Your task to perform on an android device: toggle wifi Image 0: 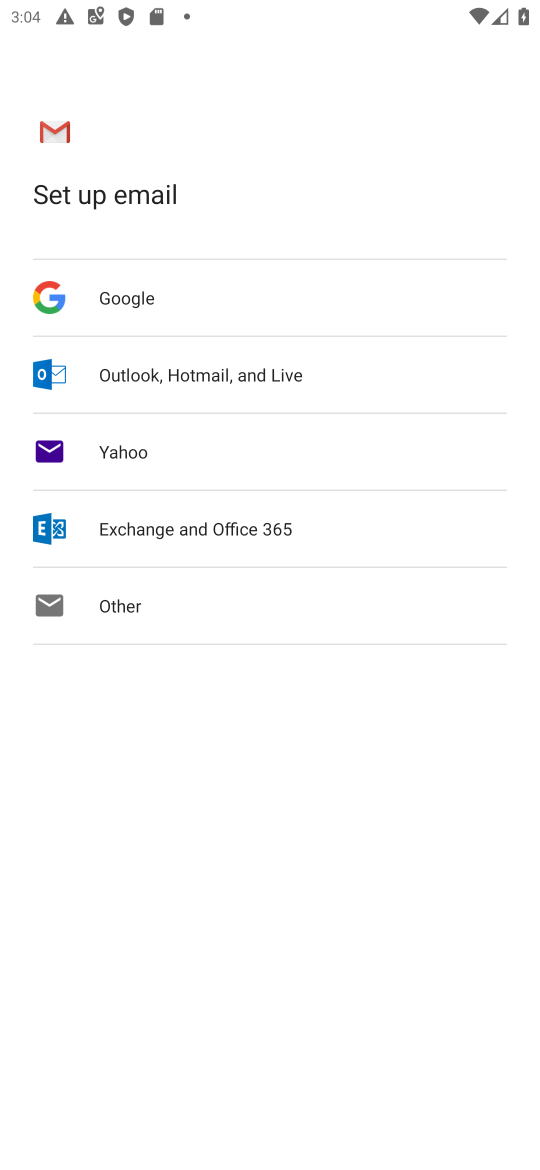
Step 0: press home button
Your task to perform on an android device: toggle wifi Image 1: 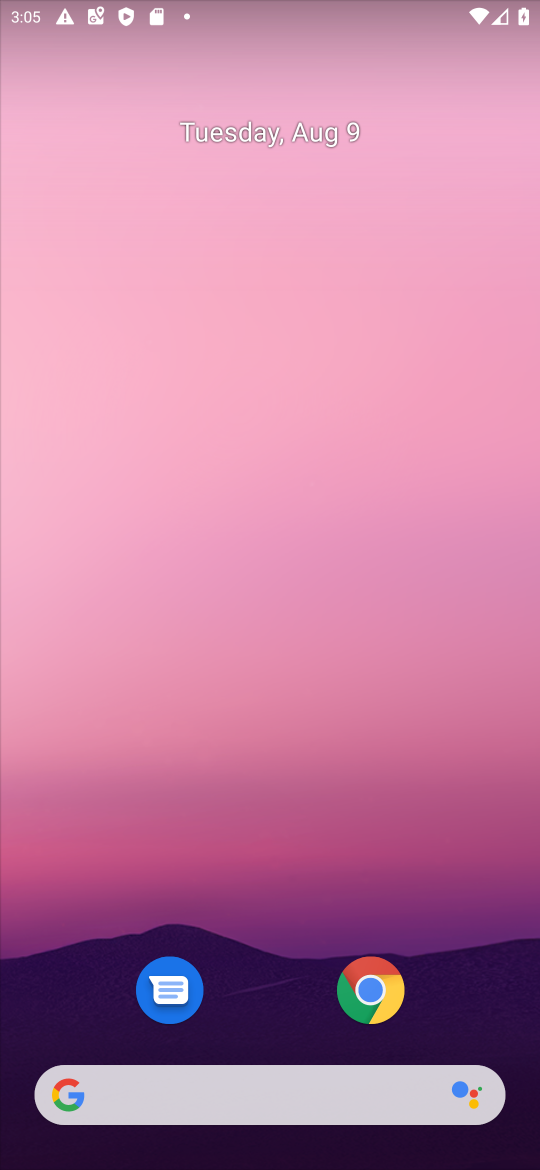
Step 1: drag from (305, 1091) to (284, 8)
Your task to perform on an android device: toggle wifi Image 2: 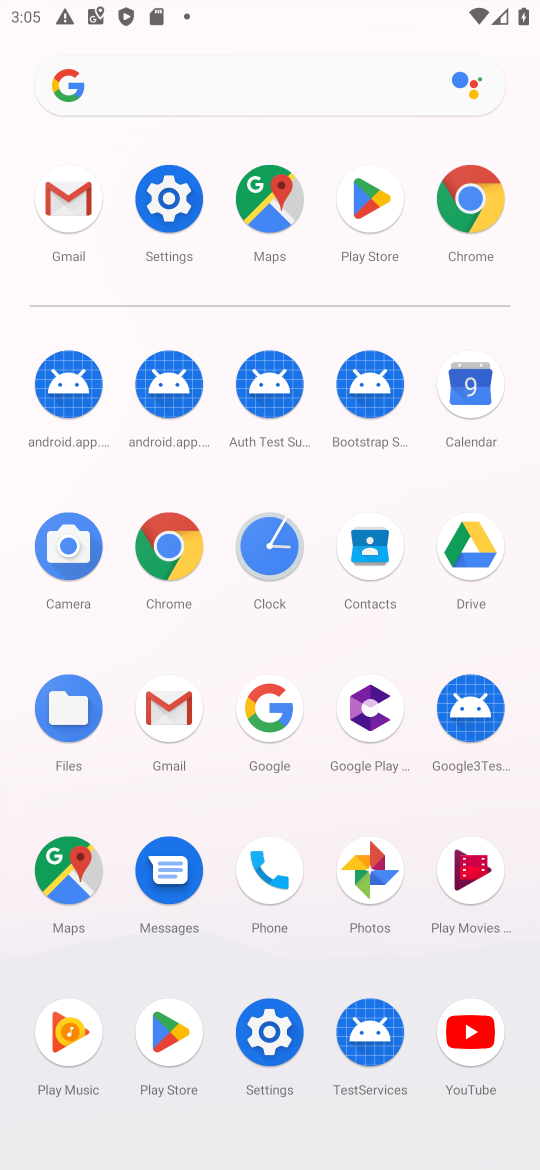
Step 2: click (168, 197)
Your task to perform on an android device: toggle wifi Image 3: 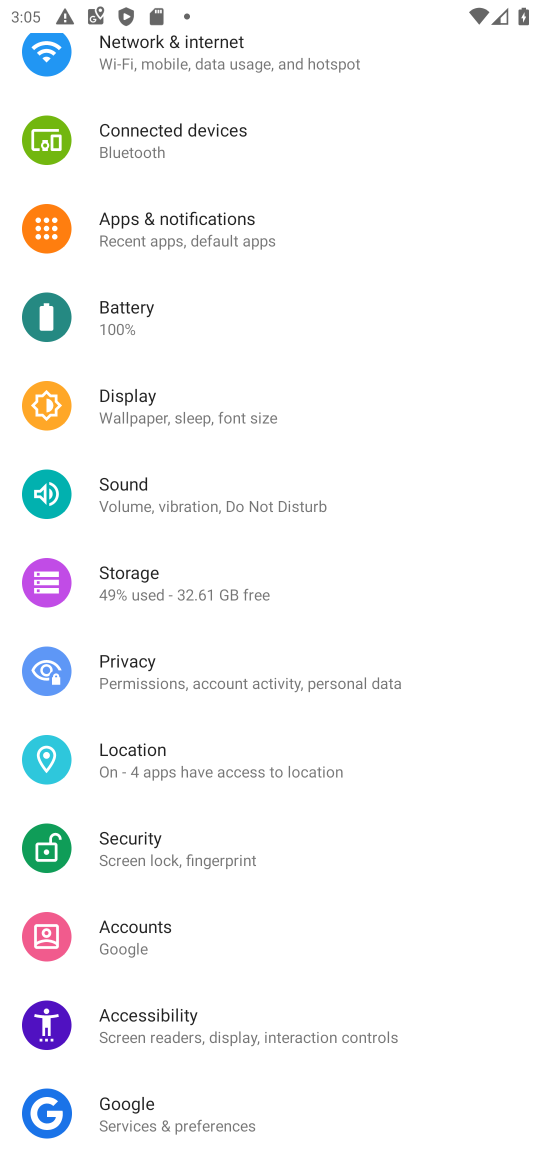
Step 3: click (261, 82)
Your task to perform on an android device: toggle wifi Image 4: 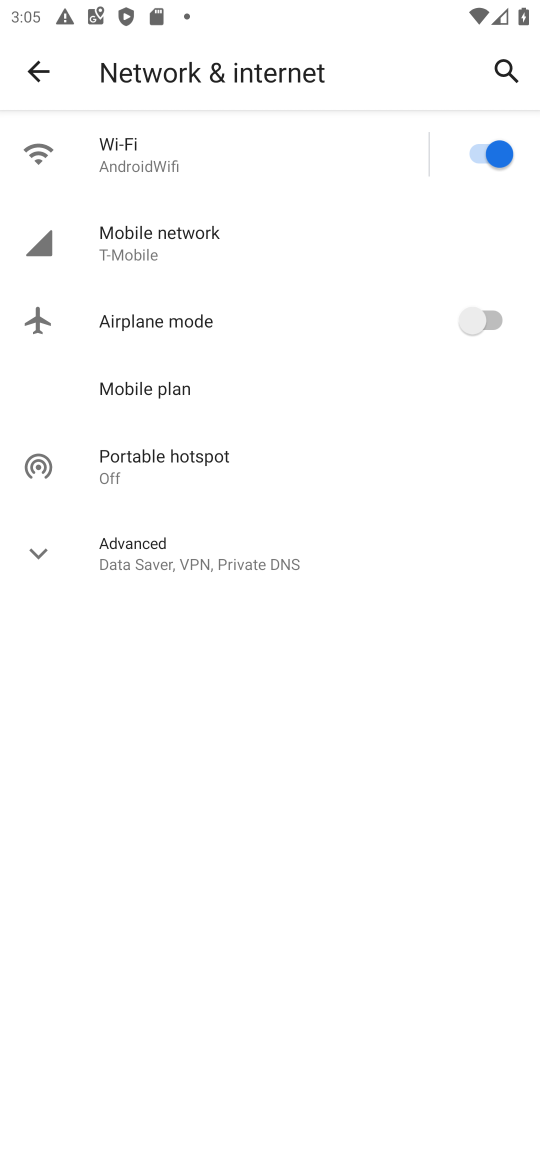
Step 4: click (478, 157)
Your task to perform on an android device: toggle wifi Image 5: 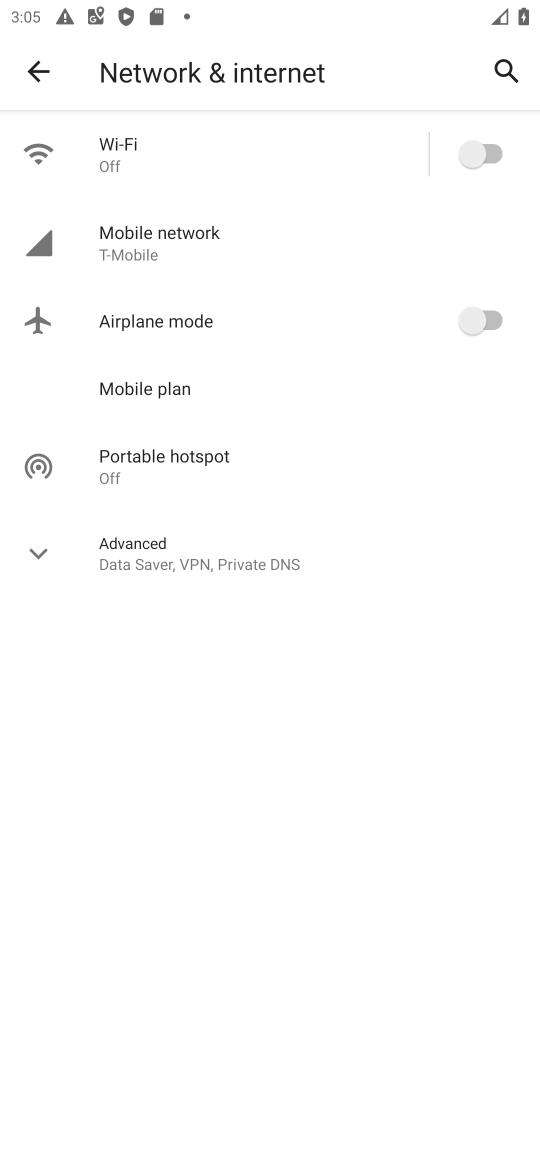
Step 5: task complete